Your task to perform on an android device: Go to Amazon Image 0: 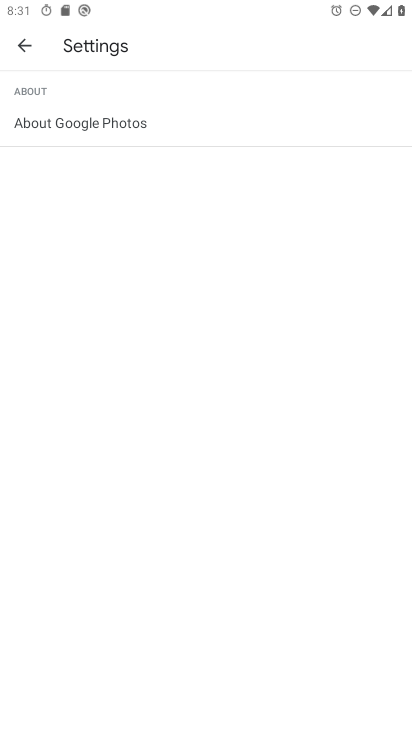
Step 0: press home button
Your task to perform on an android device: Go to Amazon Image 1: 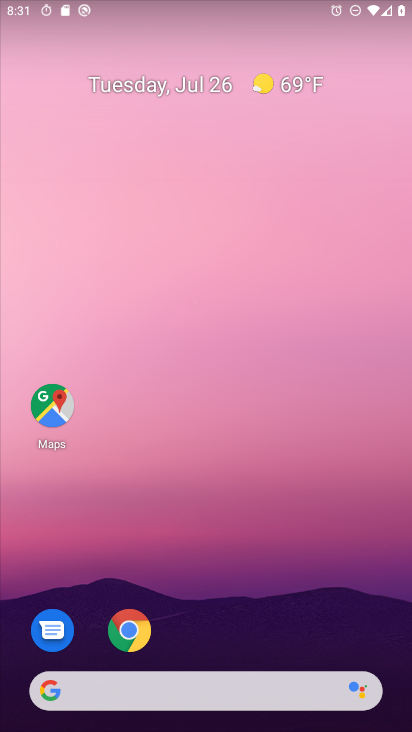
Step 1: drag from (242, 618) to (282, 8)
Your task to perform on an android device: Go to Amazon Image 2: 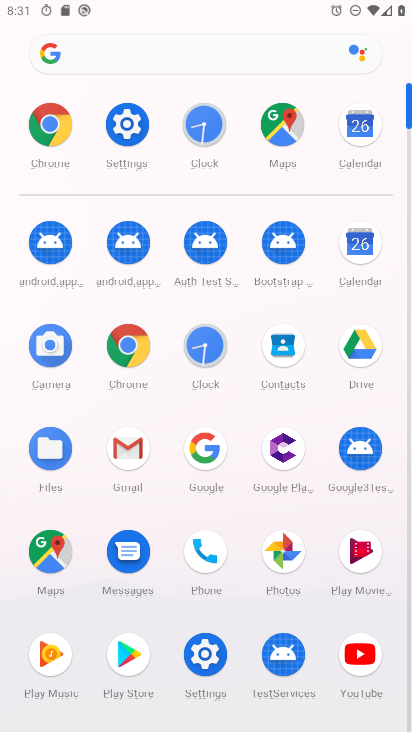
Step 2: click (136, 339)
Your task to perform on an android device: Go to Amazon Image 3: 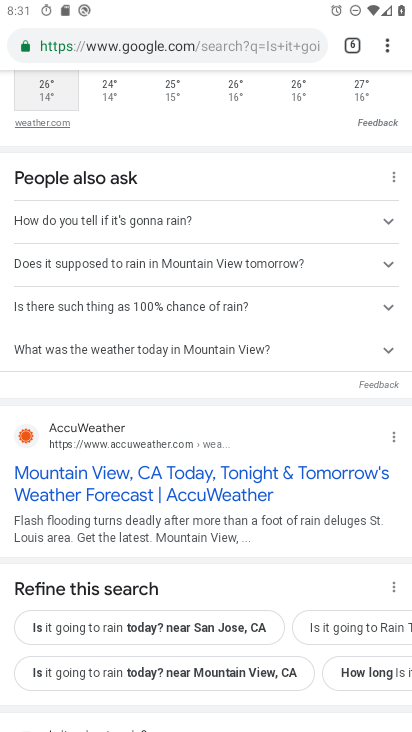
Step 3: click (364, 48)
Your task to perform on an android device: Go to Amazon Image 4: 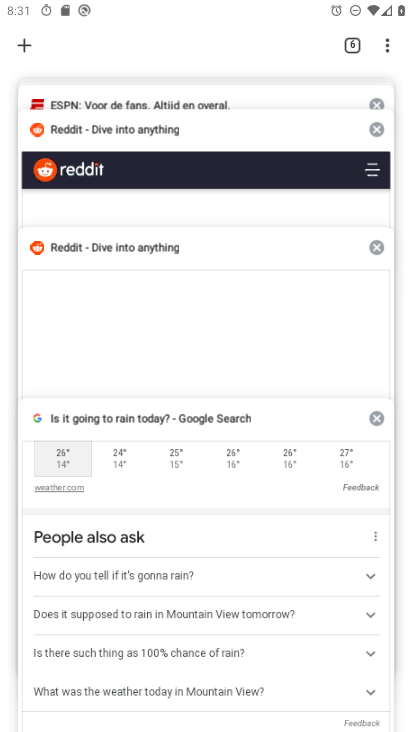
Step 4: click (37, 40)
Your task to perform on an android device: Go to Amazon Image 5: 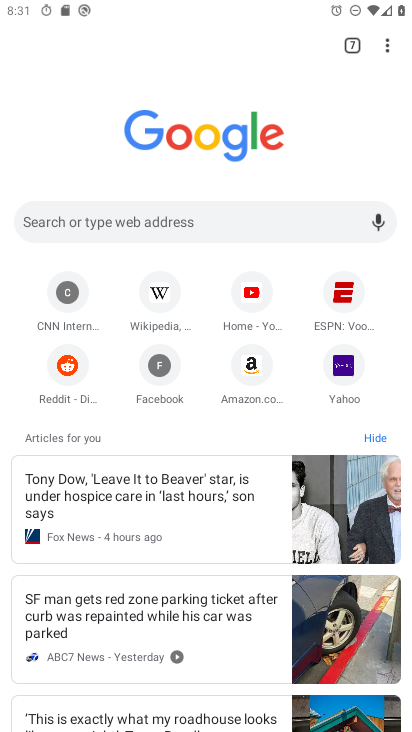
Step 5: click (266, 375)
Your task to perform on an android device: Go to Amazon Image 6: 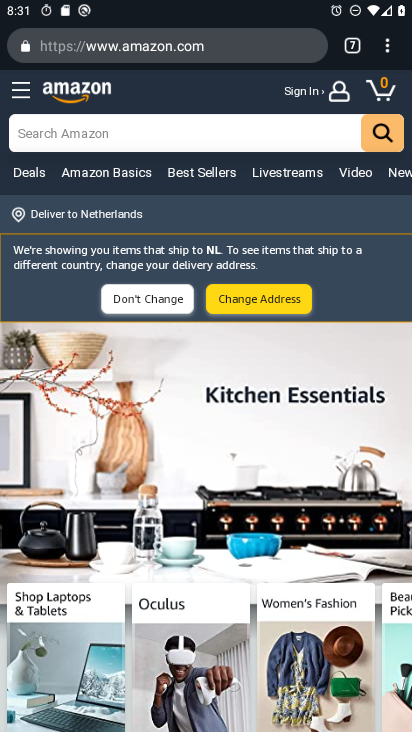
Step 6: task complete